Your task to perform on an android device: turn off translation in the chrome app Image 0: 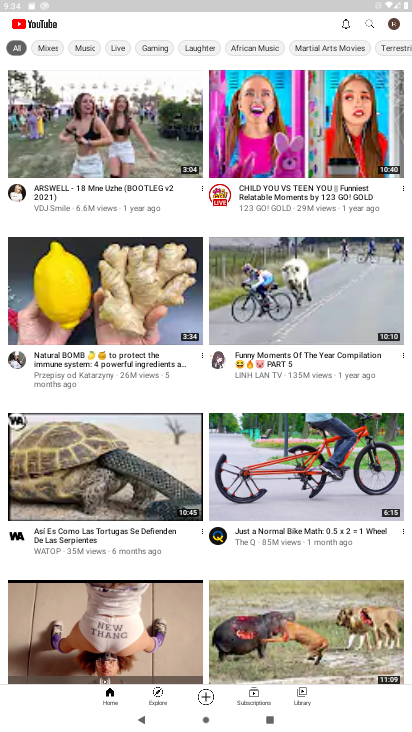
Step 0: press home button
Your task to perform on an android device: turn off translation in the chrome app Image 1: 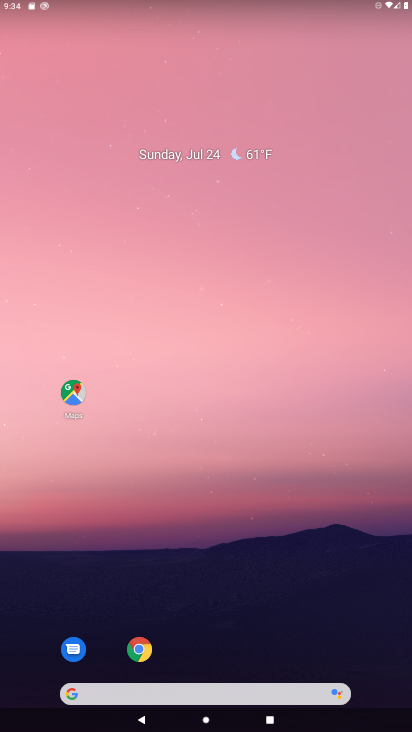
Step 1: drag from (285, 633) to (269, 346)
Your task to perform on an android device: turn off translation in the chrome app Image 2: 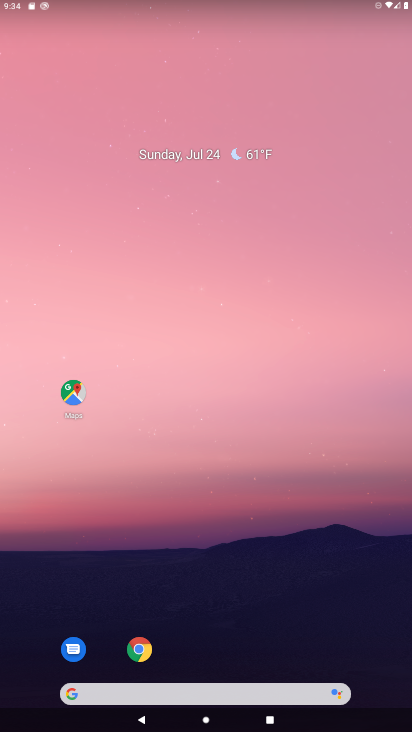
Step 2: drag from (299, 562) to (256, 172)
Your task to perform on an android device: turn off translation in the chrome app Image 3: 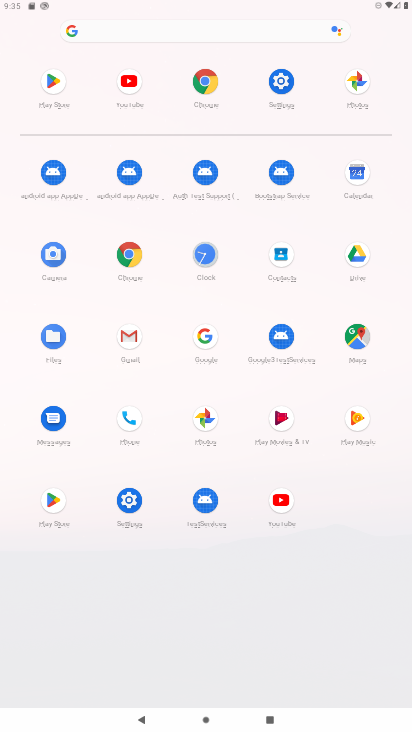
Step 3: click (206, 83)
Your task to perform on an android device: turn off translation in the chrome app Image 4: 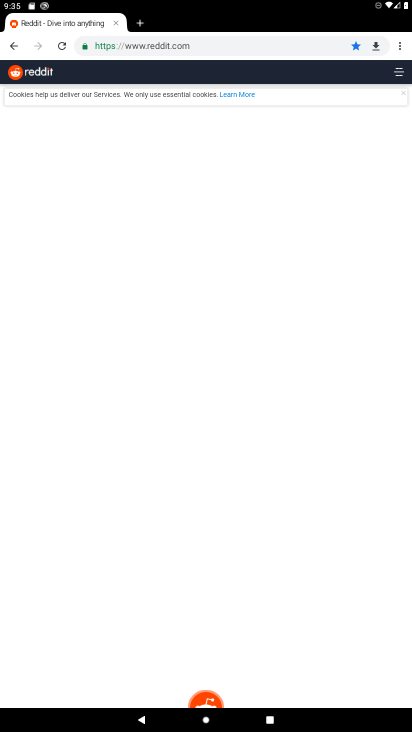
Step 4: drag from (399, 49) to (301, 325)
Your task to perform on an android device: turn off translation in the chrome app Image 5: 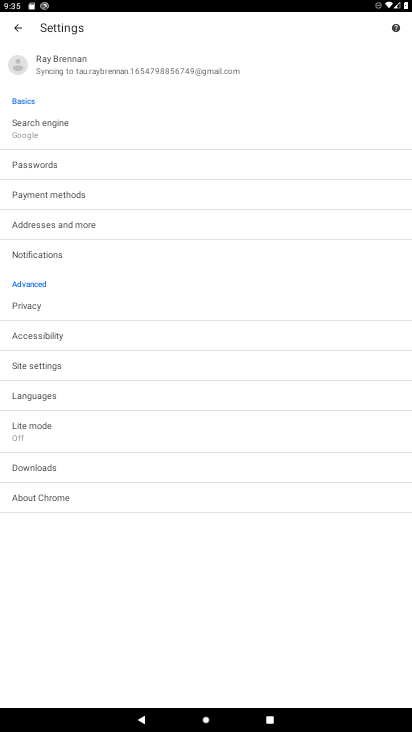
Step 5: click (55, 398)
Your task to perform on an android device: turn off translation in the chrome app Image 6: 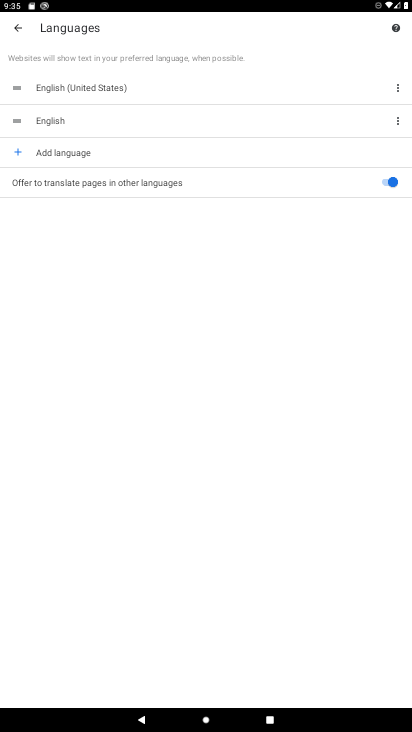
Step 6: click (391, 181)
Your task to perform on an android device: turn off translation in the chrome app Image 7: 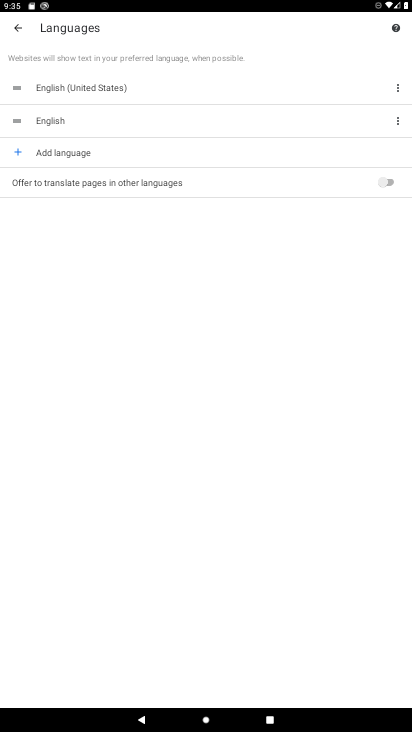
Step 7: task complete